Your task to perform on an android device: turn on data saver in the chrome app Image 0: 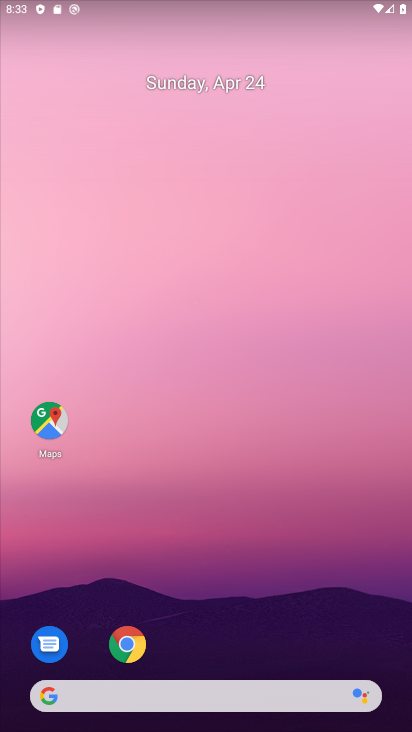
Step 0: drag from (192, 682) to (311, 4)
Your task to perform on an android device: turn on data saver in the chrome app Image 1: 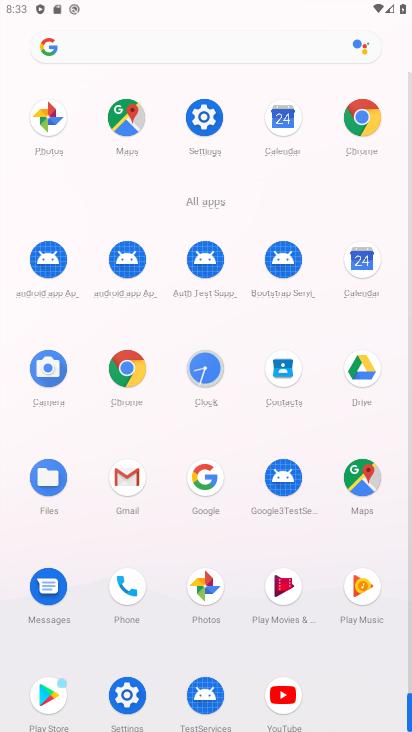
Step 1: click (359, 122)
Your task to perform on an android device: turn on data saver in the chrome app Image 2: 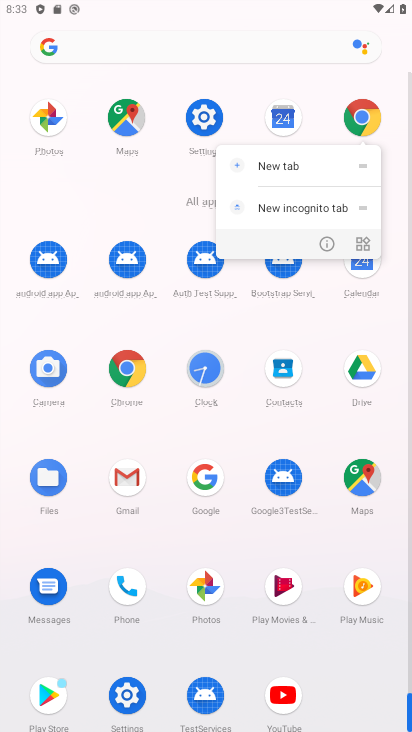
Step 2: click (360, 121)
Your task to perform on an android device: turn on data saver in the chrome app Image 3: 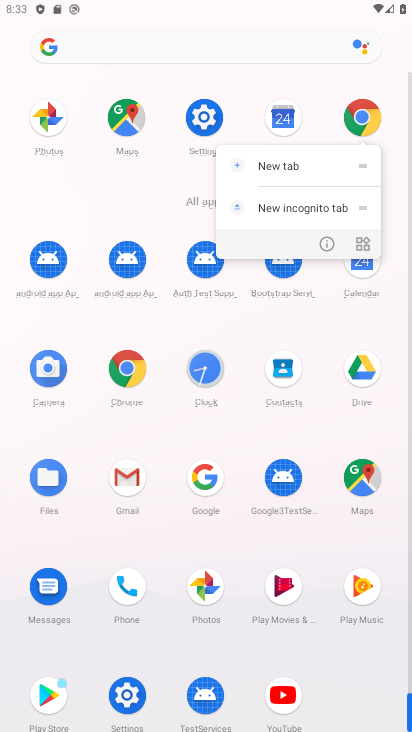
Step 3: click (369, 119)
Your task to perform on an android device: turn on data saver in the chrome app Image 4: 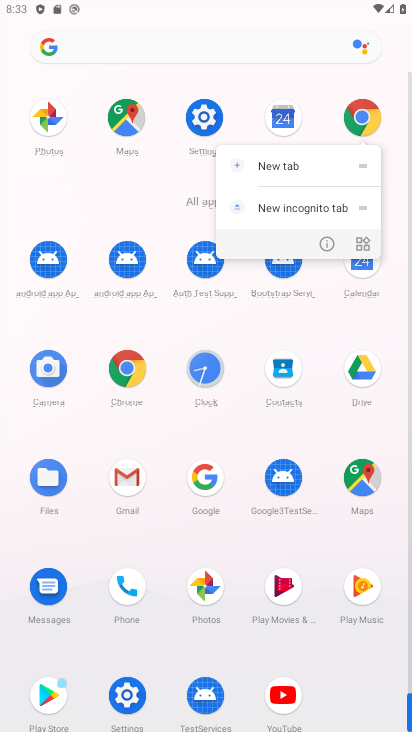
Step 4: click (353, 95)
Your task to perform on an android device: turn on data saver in the chrome app Image 5: 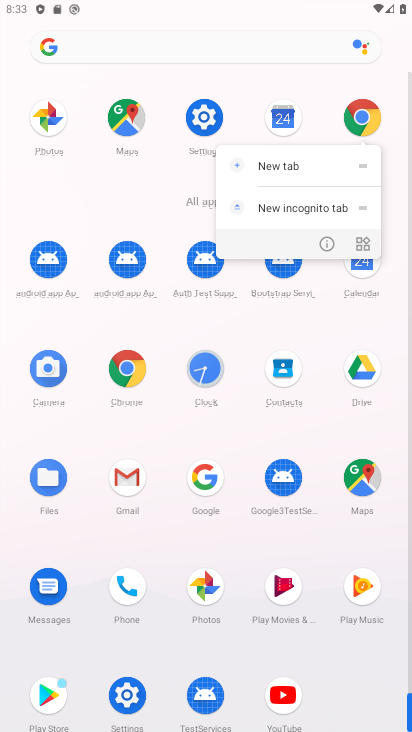
Step 5: click (368, 114)
Your task to perform on an android device: turn on data saver in the chrome app Image 6: 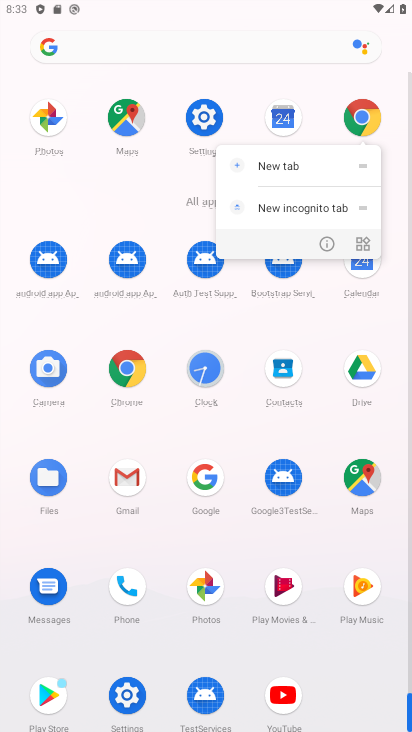
Step 6: click (370, 116)
Your task to perform on an android device: turn on data saver in the chrome app Image 7: 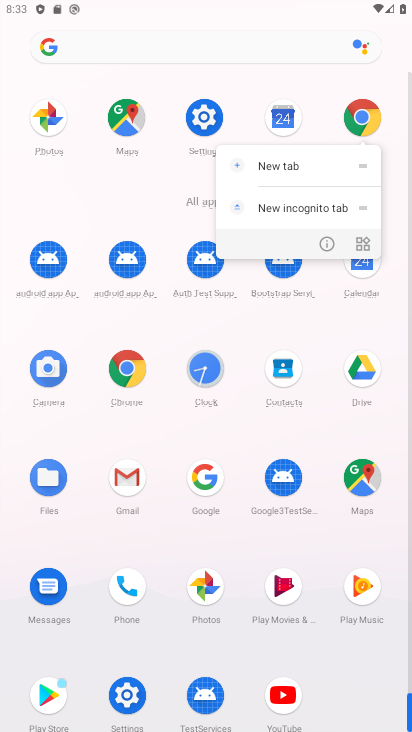
Step 7: click (368, 123)
Your task to perform on an android device: turn on data saver in the chrome app Image 8: 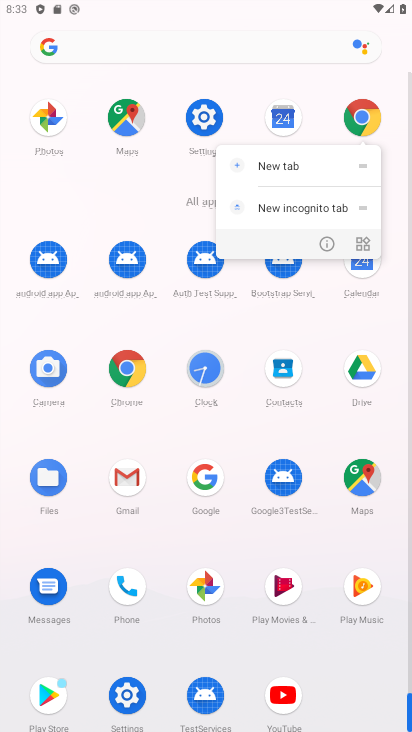
Step 8: click (375, 115)
Your task to perform on an android device: turn on data saver in the chrome app Image 9: 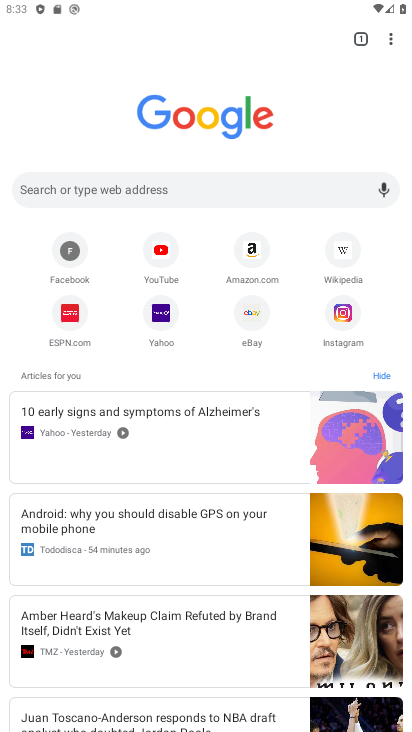
Step 9: drag from (391, 45) to (307, 368)
Your task to perform on an android device: turn on data saver in the chrome app Image 10: 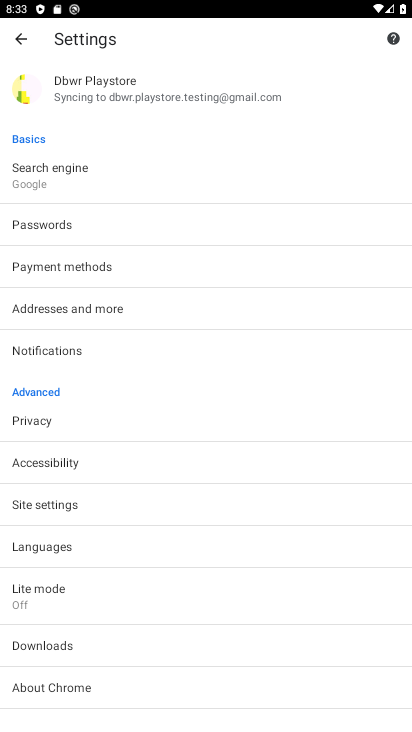
Step 10: drag from (173, 611) to (225, 327)
Your task to perform on an android device: turn on data saver in the chrome app Image 11: 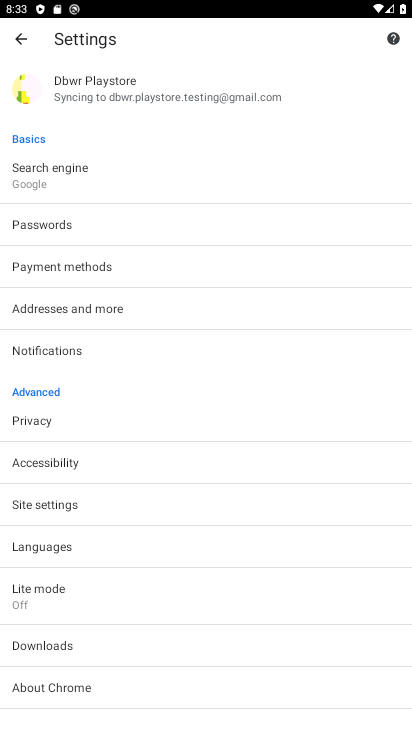
Step 11: click (76, 592)
Your task to perform on an android device: turn on data saver in the chrome app Image 12: 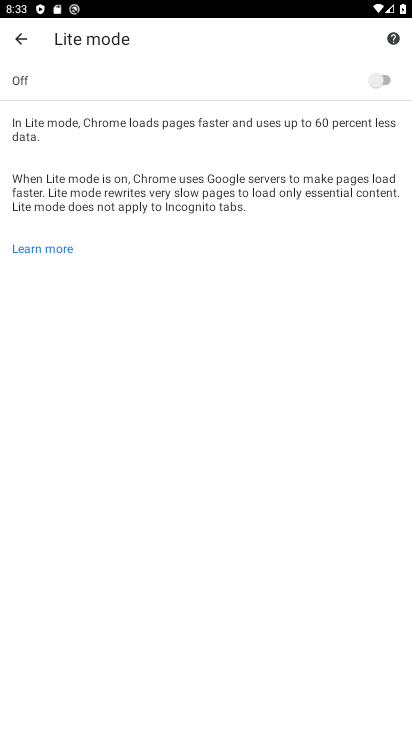
Step 12: click (397, 74)
Your task to perform on an android device: turn on data saver in the chrome app Image 13: 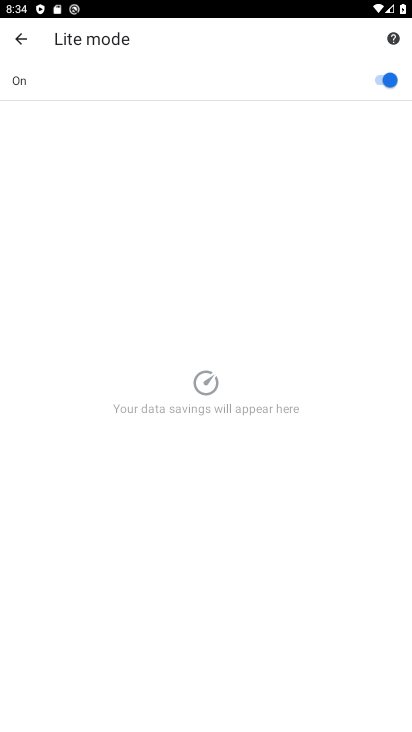
Step 13: task complete